Your task to perform on an android device: Go to Android settings Image 0: 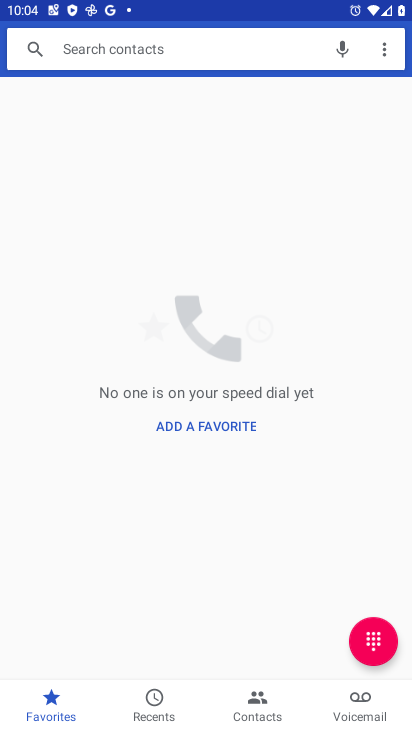
Step 0: press home button
Your task to perform on an android device: Go to Android settings Image 1: 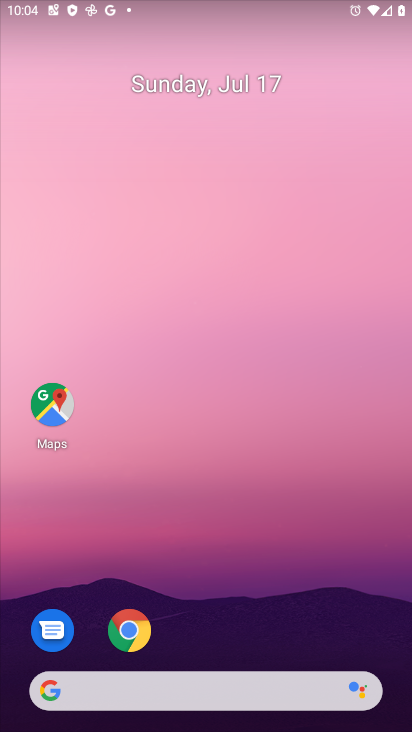
Step 1: drag from (221, 298) to (226, 84)
Your task to perform on an android device: Go to Android settings Image 2: 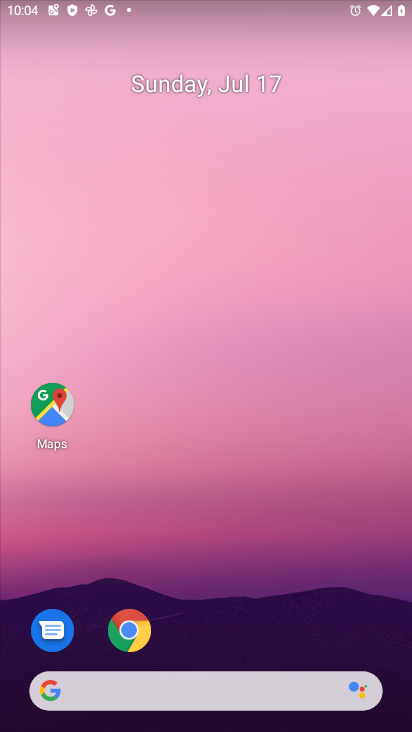
Step 2: drag from (215, 541) to (213, 240)
Your task to perform on an android device: Go to Android settings Image 3: 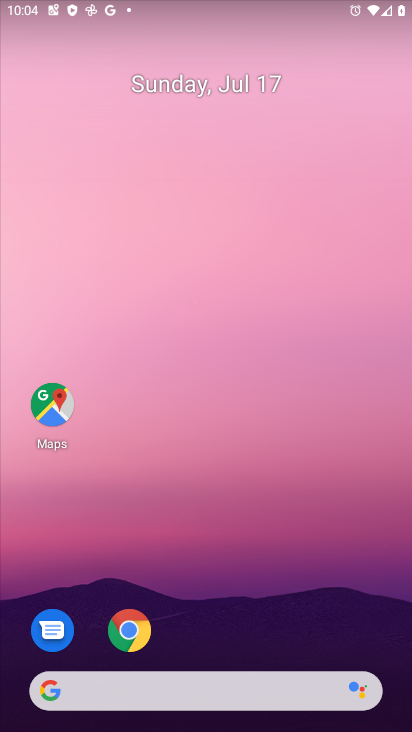
Step 3: drag from (197, 618) to (199, 107)
Your task to perform on an android device: Go to Android settings Image 4: 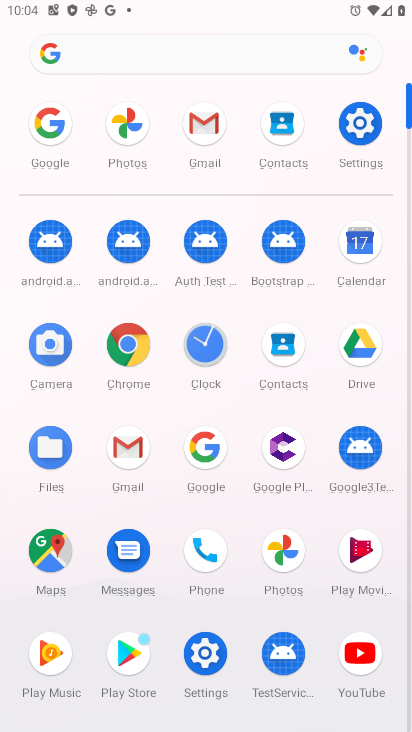
Step 4: click (357, 122)
Your task to perform on an android device: Go to Android settings Image 5: 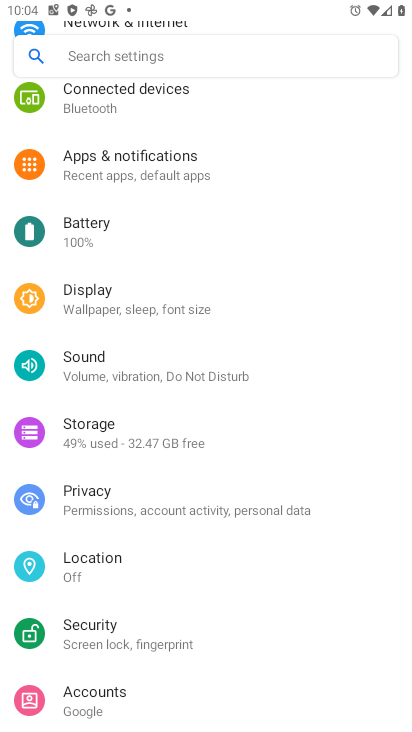
Step 5: drag from (95, 570) to (107, 199)
Your task to perform on an android device: Go to Android settings Image 6: 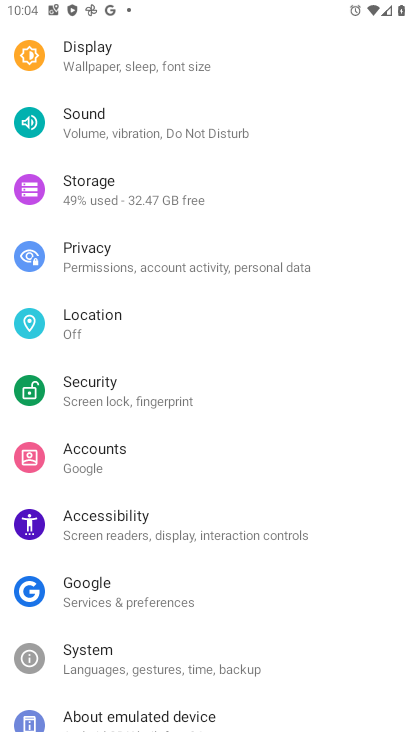
Step 6: drag from (145, 187) to (117, 539)
Your task to perform on an android device: Go to Android settings Image 7: 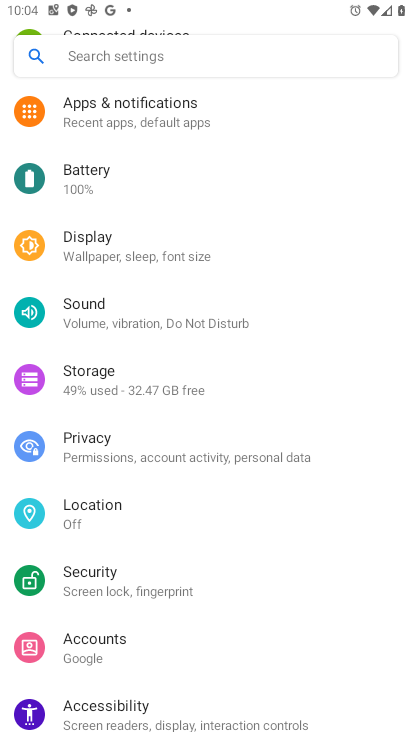
Step 7: drag from (140, 317) to (108, 618)
Your task to perform on an android device: Go to Android settings Image 8: 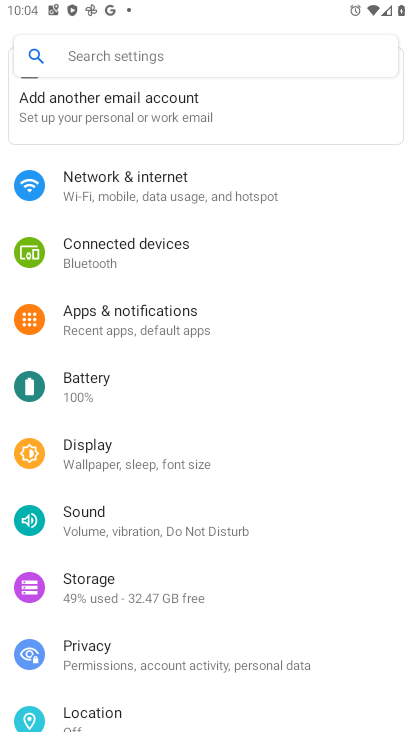
Step 8: drag from (132, 490) to (161, 117)
Your task to perform on an android device: Go to Android settings Image 9: 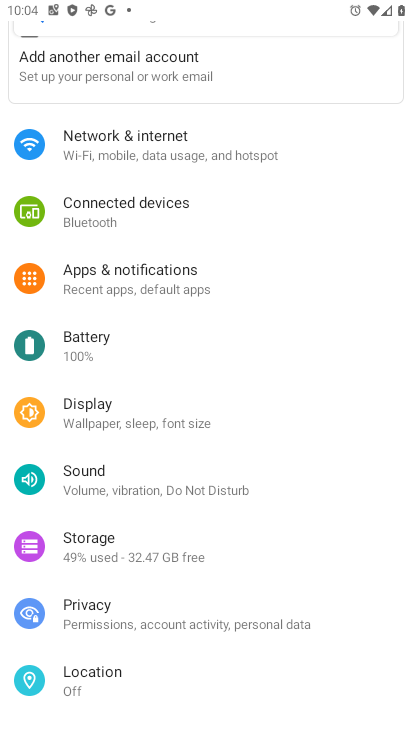
Step 9: drag from (129, 621) to (146, 347)
Your task to perform on an android device: Go to Android settings Image 10: 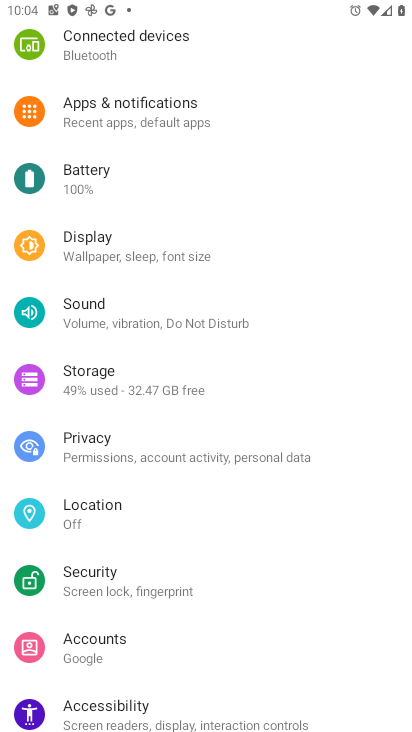
Step 10: drag from (114, 541) to (147, 294)
Your task to perform on an android device: Go to Android settings Image 11: 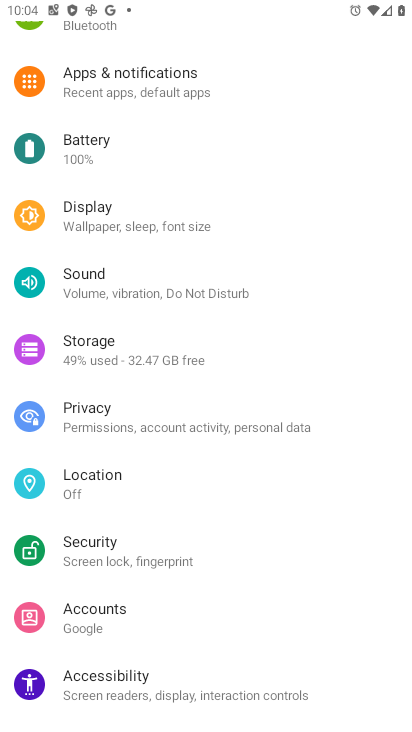
Step 11: drag from (166, 532) to (186, 200)
Your task to perform on an android device: Go to Android settings Image 12: 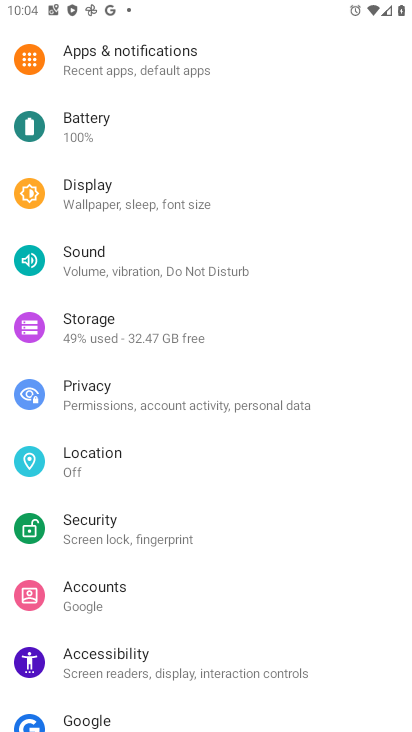
Step 12: drag from (114, 682) to (141, 324)
Your task to perform on an android device: Go to Android settings Image 13: 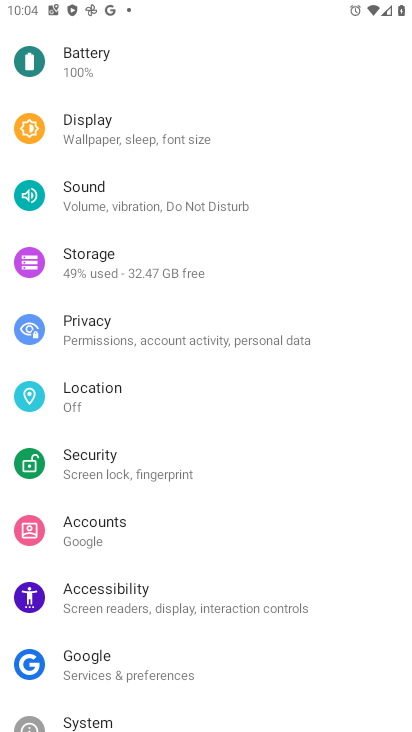
Step 13: drag from (135, 544) to (170, 363)
Your task to perform on an android device: Go to Android settings Image 14: 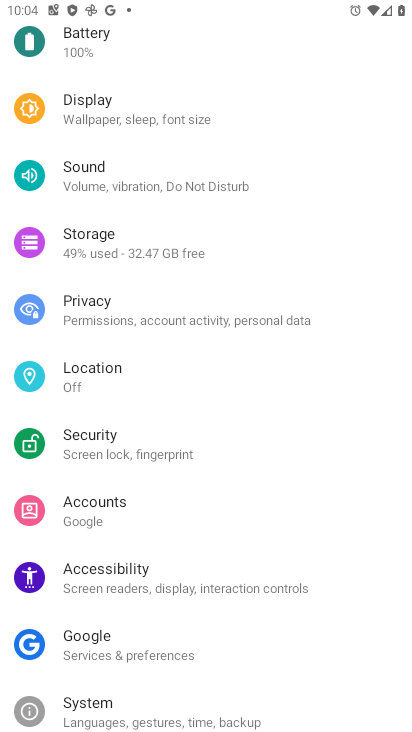
Step 14: drag from (174, 512) to (187, 270)
Your task to perform on an android device: Go to Android settings Image 15: 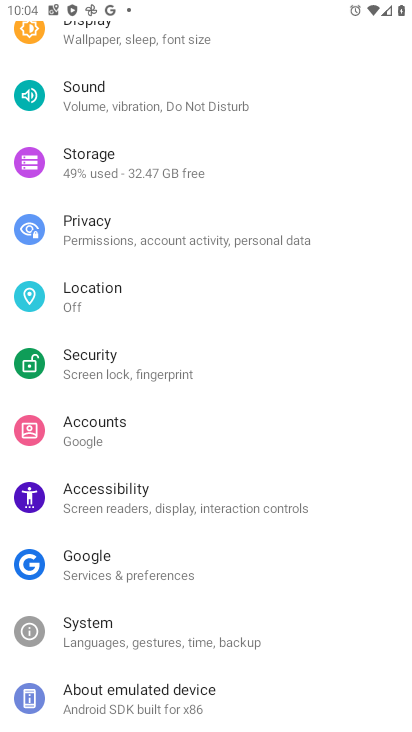
Step 15: click (83, 714)
Your task to perform on an android device: Go to Android settings Image 16: 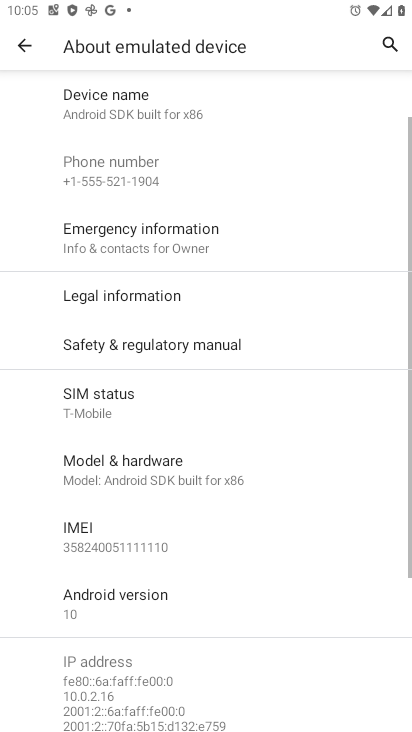
Step 16: drag from (238, 576) to (255, 320)
Your task to perform on an android device: Go to Android settings Image 17: 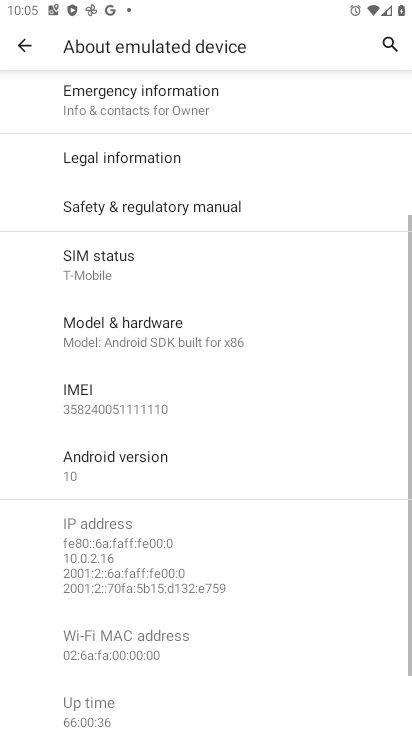
Step 17: drag from (254, 357) to (256, 198)
Your task to perform on an android device: Go to Android settings Image 18: 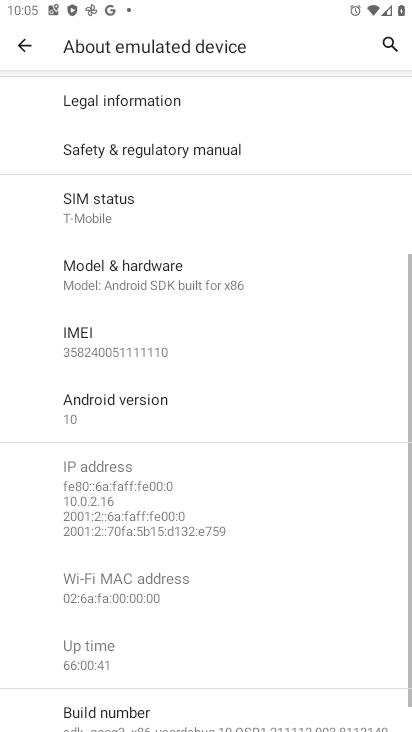
Step 18: drag from (158, 692) to (193, 423)
Your task to perform on an android device: Go to Android settings Image 19: 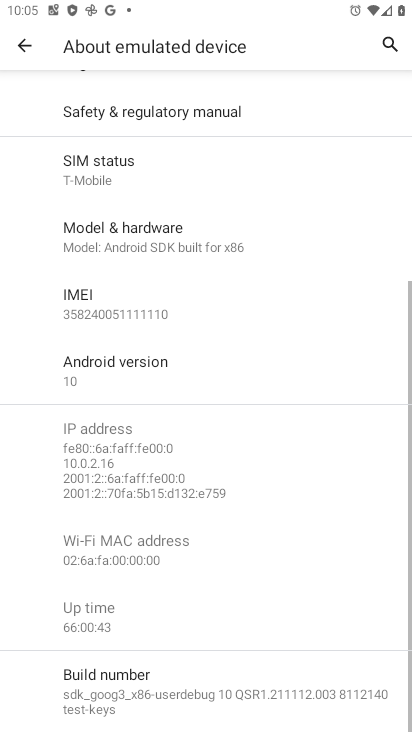
Step 19: drag from (174, 509) to (228, 288)
Your task to perform on an android device: Go to Android settings Image 20: 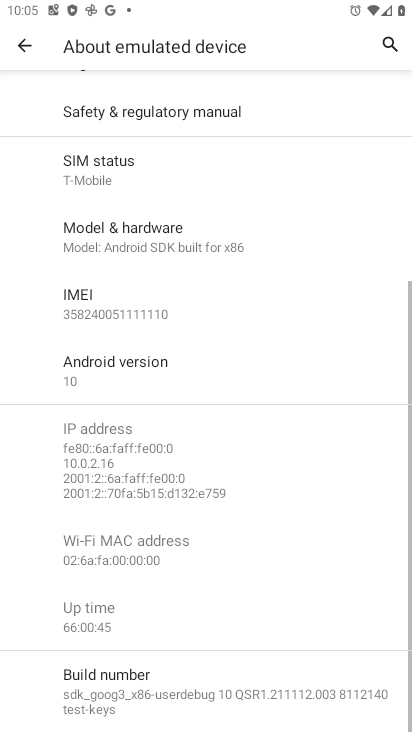
Step 20: drag from (228, 288) to (164, 495)
Your task to perform on an android device: Go to Android settings Image 21: 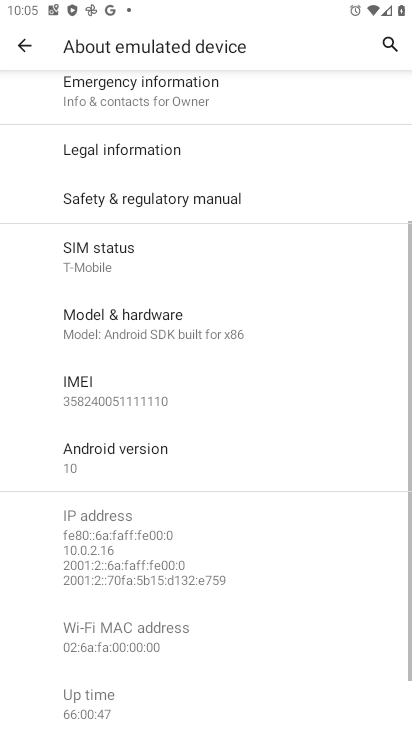
Step 21: click (147, 474)
Your task to perform on an android device: Go to Android settings Image 22: 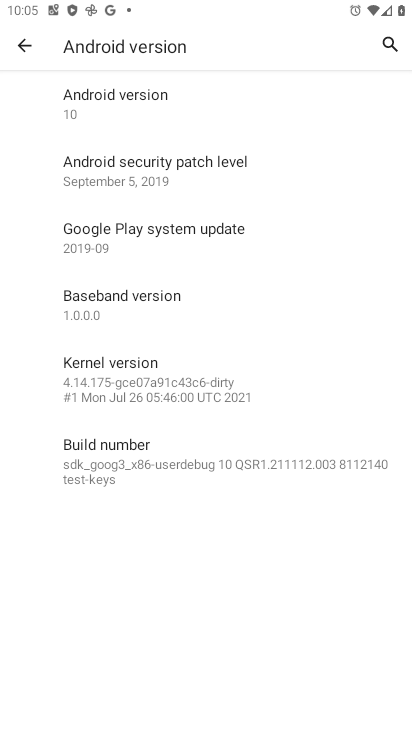
Step 22: task complete